Your task to perform on an android device: turn on the 24-hour format for clock Image 0: 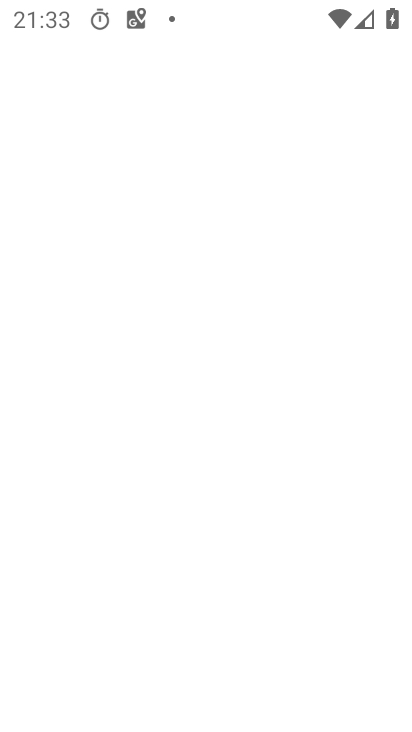
Step 0: press home button
Your task to perform on an android device: turn on the 24-hour format for clock Image 1: 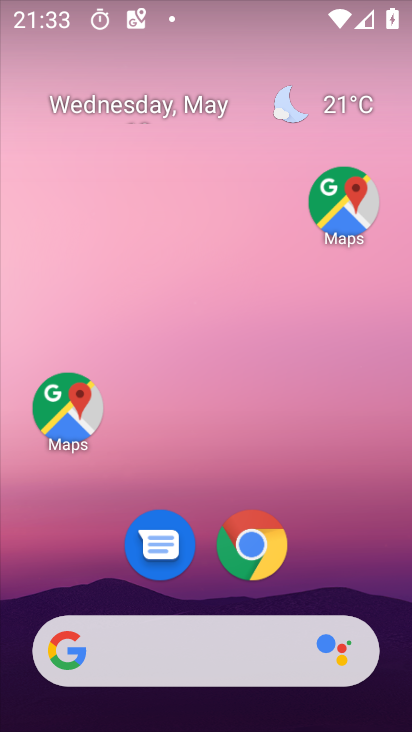
Step 1: drag from (331, 567) to (352, 154)
Your task to perform on an android device: turn on the 24-hour format for clock Image 2: 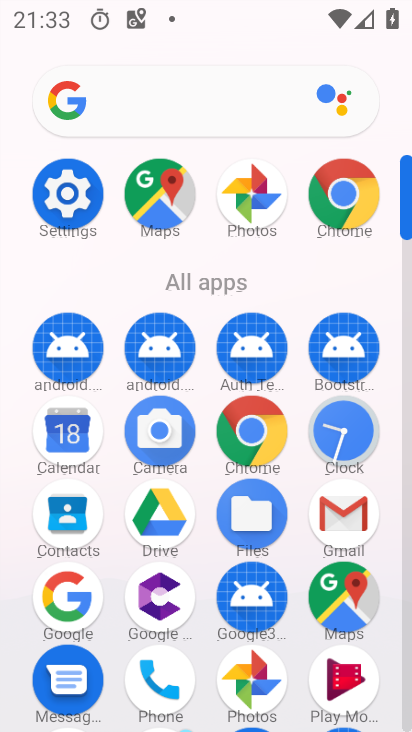
Step 2: click (331, 429)
Your task to perform on an android device: turn on the 24-hour format for clock Image 3: 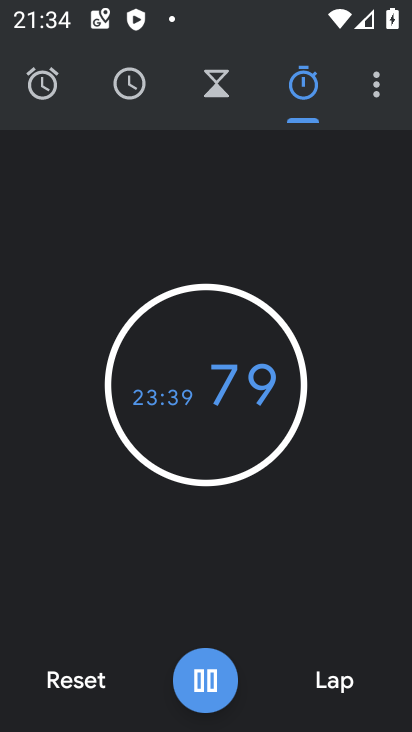
Step 3: click (368, 97)
Your task to perform on an android device: turn on the 24-hour format for clock Image 4: 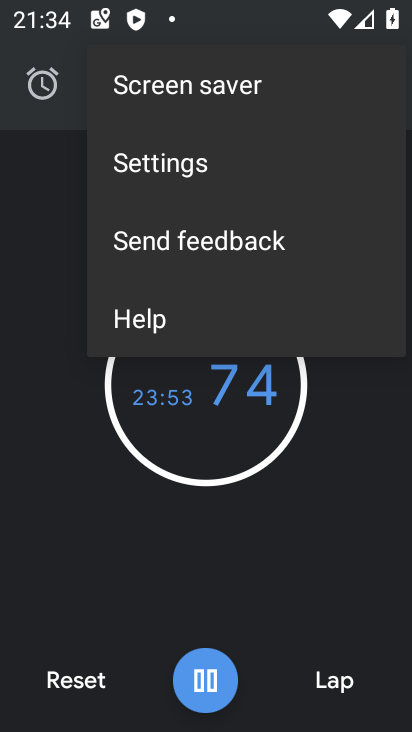
Step 4: click (169, 173)
Your task to perform on an android device: turn on the 24-hour format for clock Image 5: 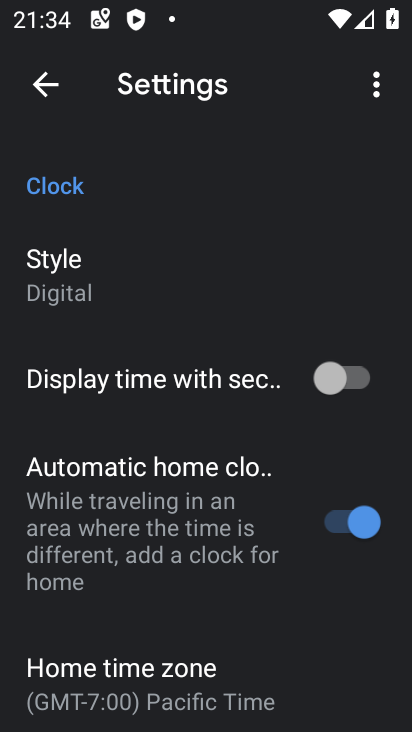
Step 5: drag from (216, 624) to (228, 287)
Your task to perform on an android device: turn on the 24-hour format for clock Image 6: 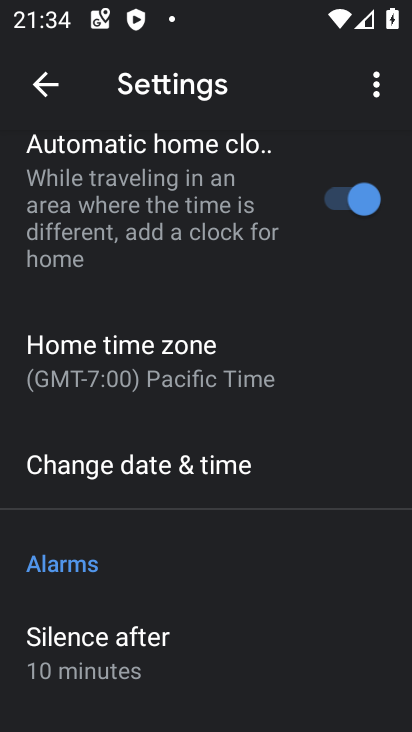
Step 6: click (149, 452)
Your task to perform on an android device: turn on the 24-hour format for clock Image 7: 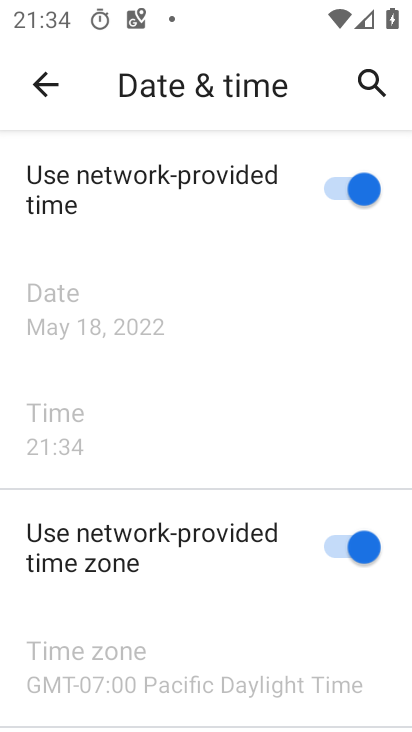
Step 7: task complete